Your task to perform on an android device: turn off javascript in the chrome app Image 0: 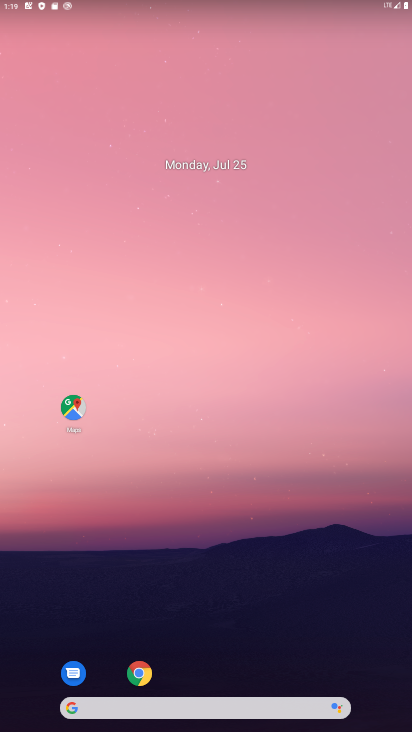
Step 0: click (137, 672)
Your task to perform on an android device: turn off javascript in the chrome app Image 1: 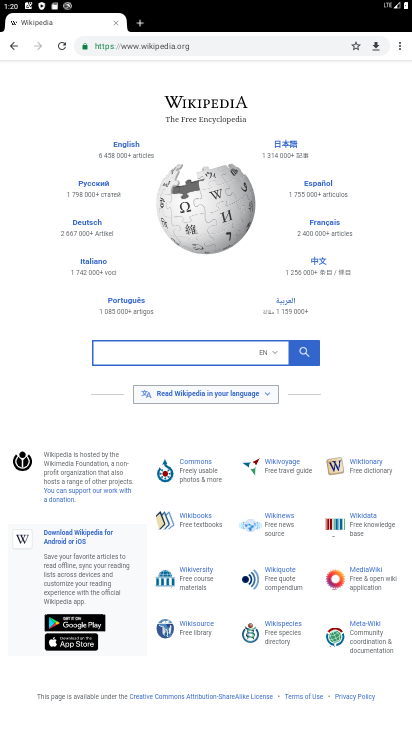
Step 1: click (400, 50)
Your task to perform on an android device: turn off javascript in the chrome app Image 2: 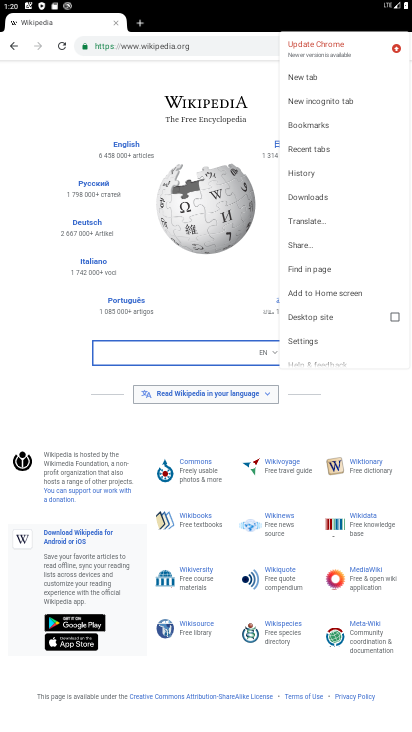
Step 2: click (306, 337)
Your task to perform on an android device: turn off javascript in the chrome app Image 3: 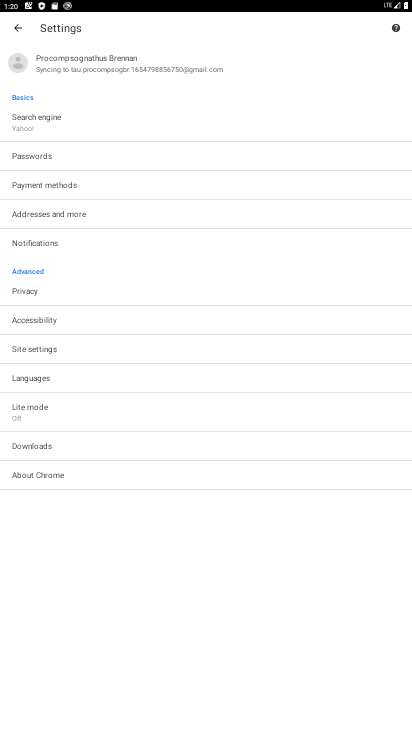
Step 3: click (45, 349)
Your task to perform on an android device: turn off javascript in the chrome app Image 4: 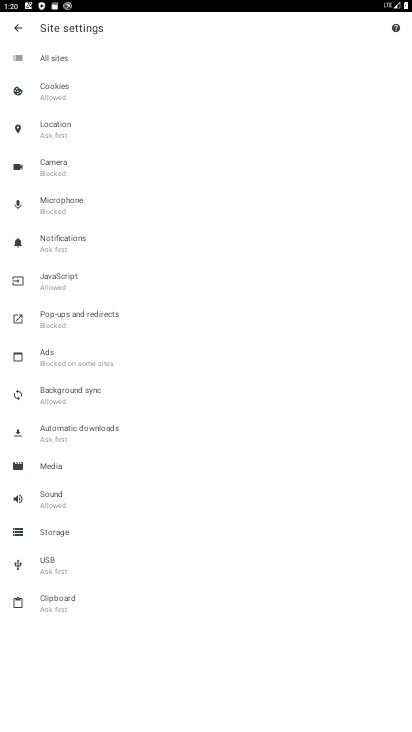
Step 4: click (57, 275)
Your task to perform on an android device: turn off javascript in the chrome app Image 5: 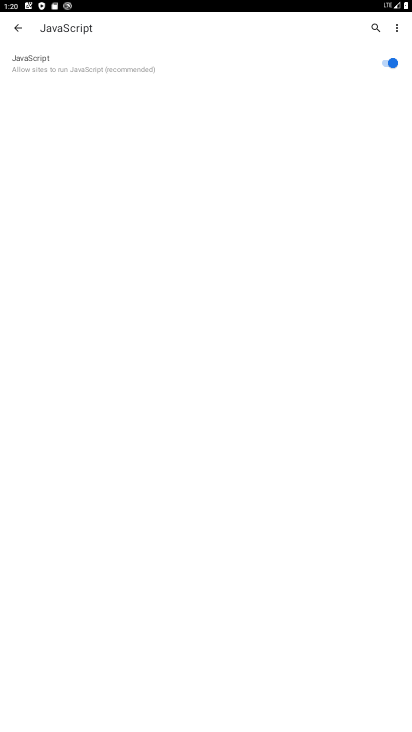
Step 5: click (383, 64)
Your task to perform on an android device: turn off javascript in the chrome app Image 6: 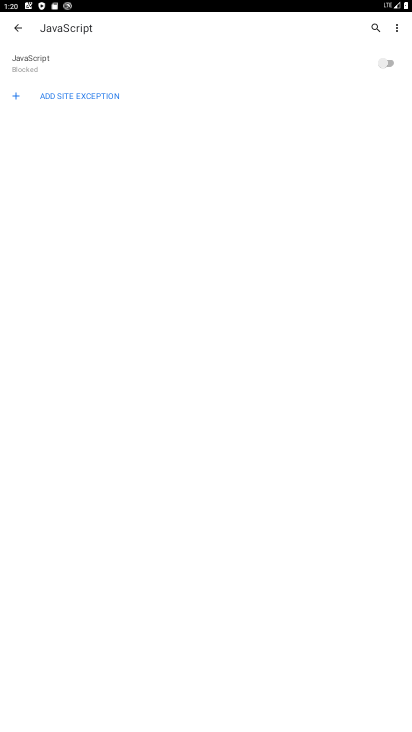
Step 6: task complete